Your task to perform on an android device: What's the weather going to be tomorrow? Image 0: 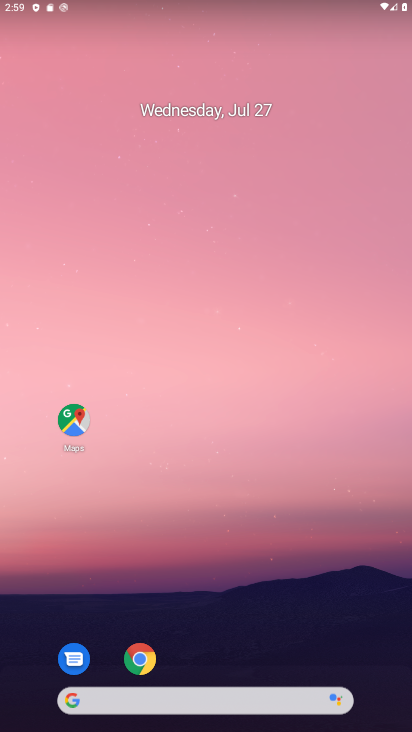
Step 0: click (118, 707)
Your task to perform on an android device: What's the weather going to be tomorrow? Image 1: 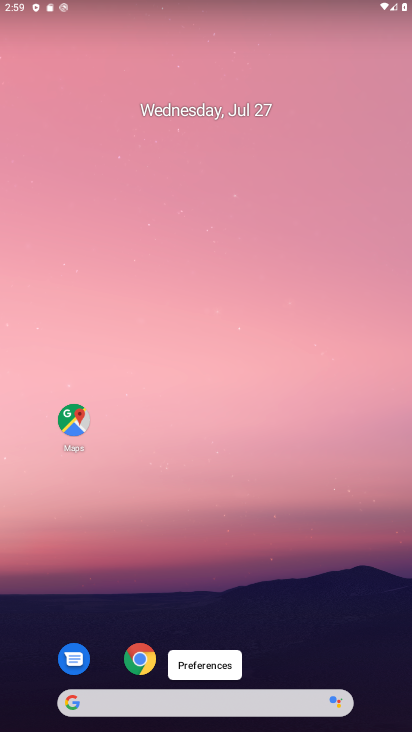
Step 1: click (143, 693)
Your task to perform on an android device: What's the weather going to be tomorrow? Image 2: 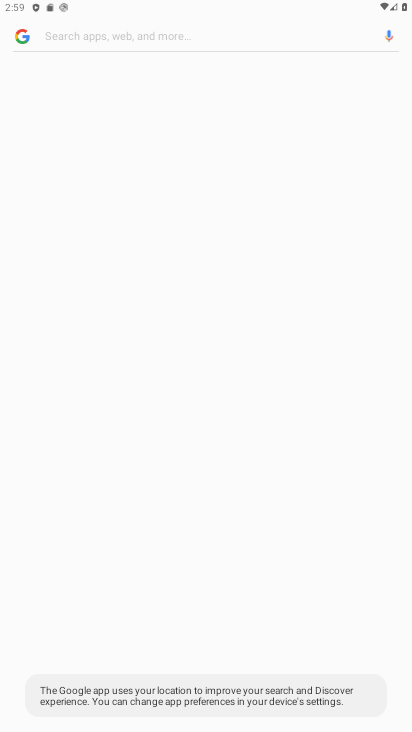
Step 2: click (139, 705)
Your task to perform on an android device: What's the weather going to be tomorrow? Image 3: 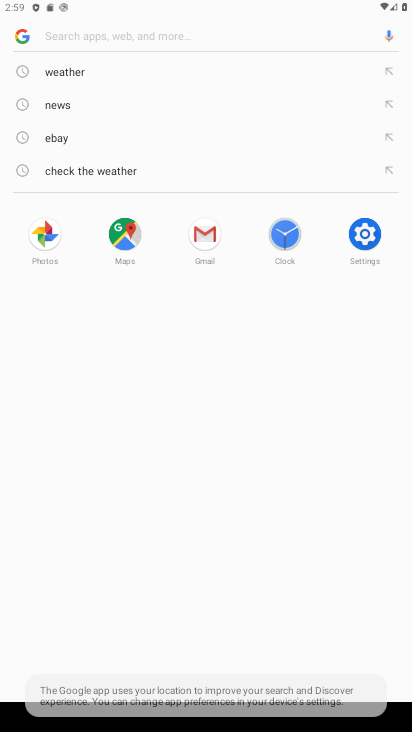
Step 3: click (73, 79)
Your task to perform on an android device: What's the weather going to be tomorrow? Image 4: 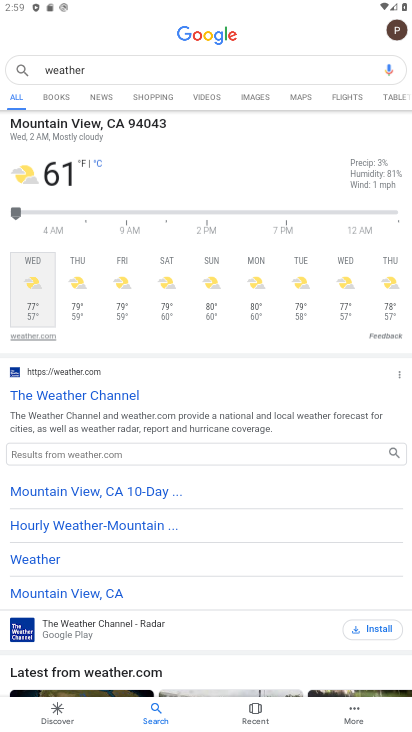
Step 4: click (76, 272)
Your task to perform on an android device: What's the weather going to be tomorrow? Image 5: 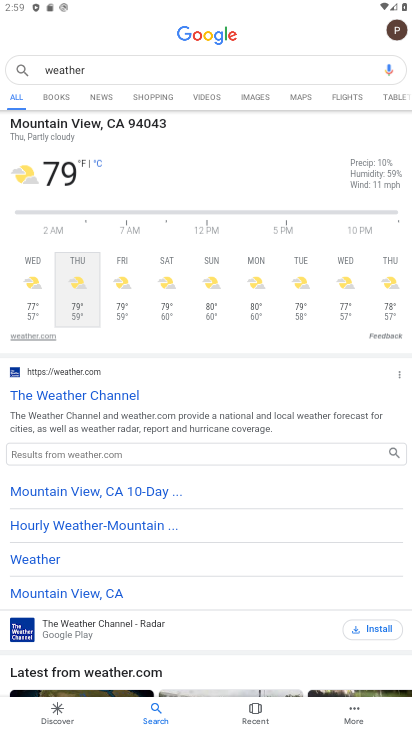
Step 5: task complete